Your task to perform on an android device: open app "Google Photos" Image 0: 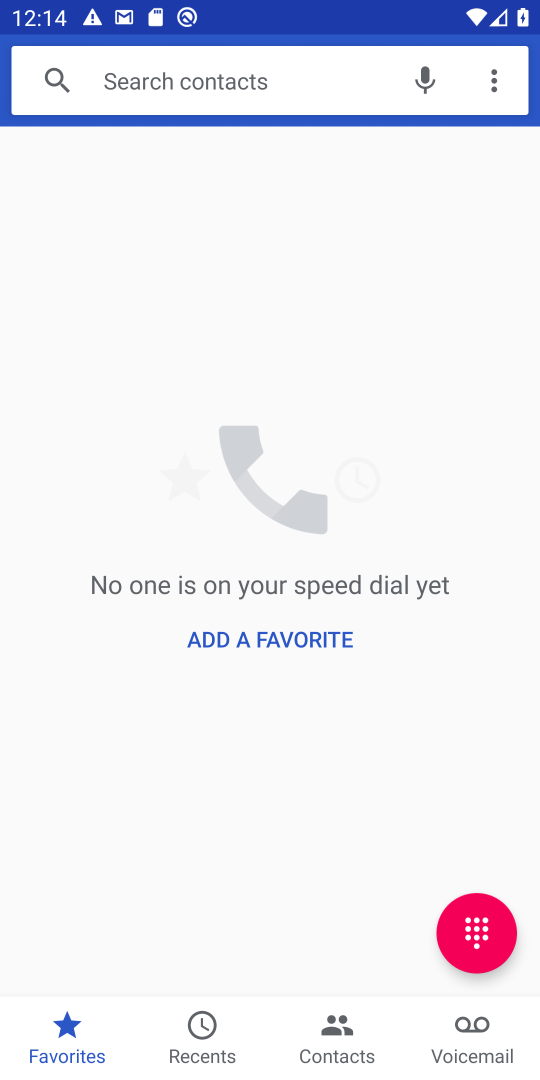
Step 0: press home button
Your task to perform on an android device: open app "Google Photos" Image 1: 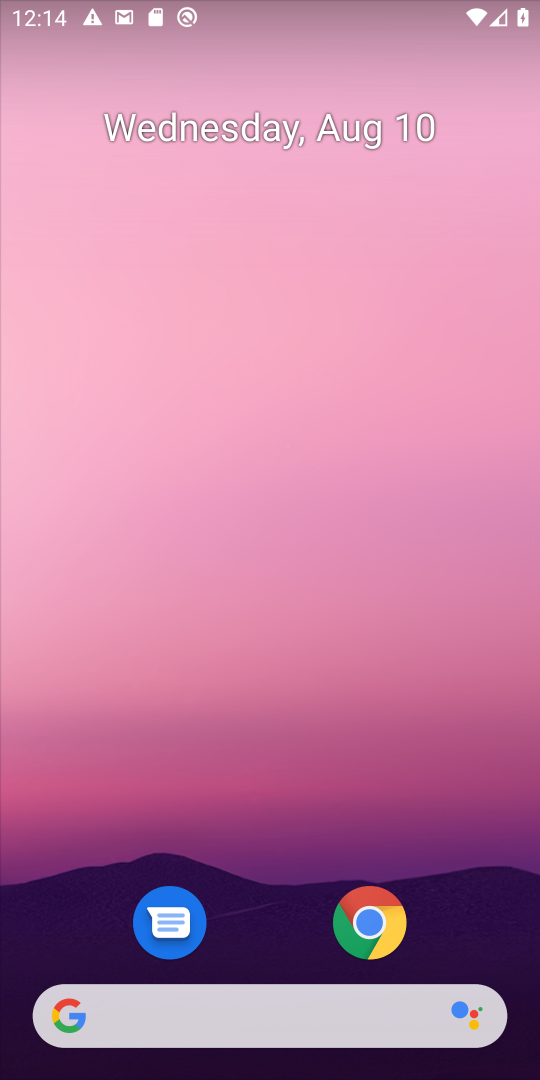
Step 1: drag from (254, 816) to (280, 99)
Your task to perform on an android device: open app "Google Photos" Image 2: 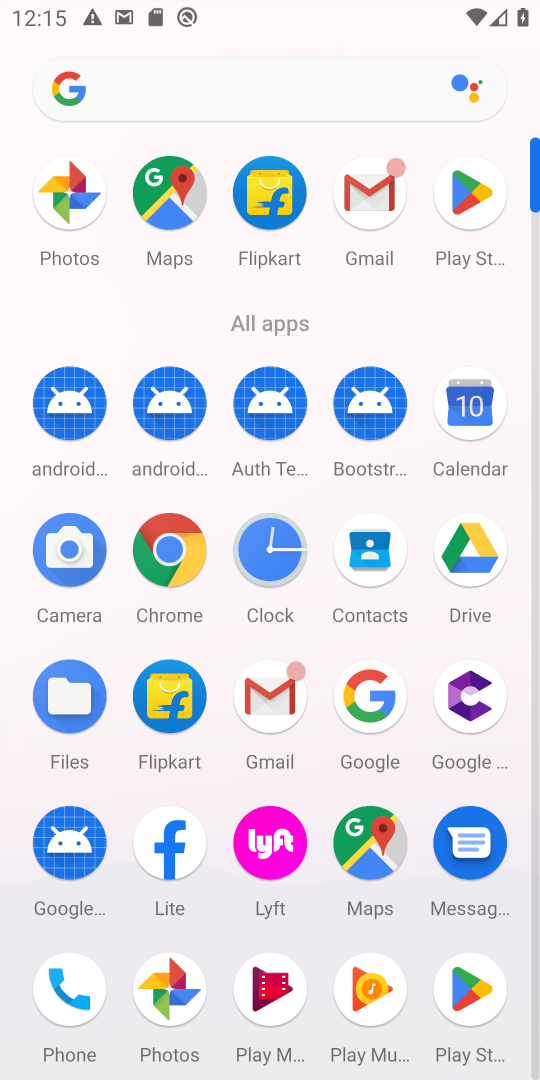
Step 2: click (162, 981)
Your task to perform on an android device: open app "Google Photos" Image 3: 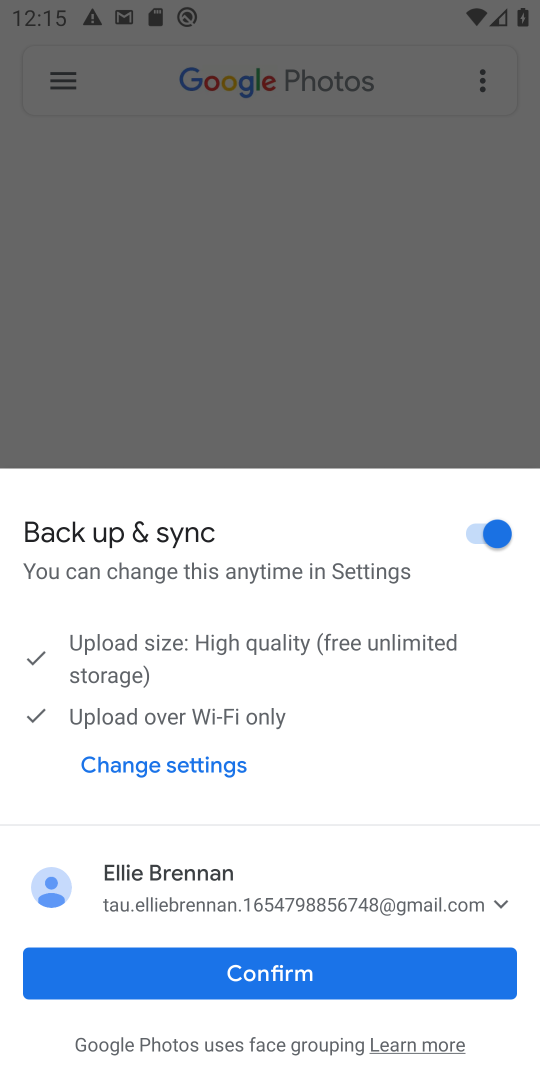
Step 3: click (259, 981)
Your task to perform on an android device: open app "Google Photos" Image 4: 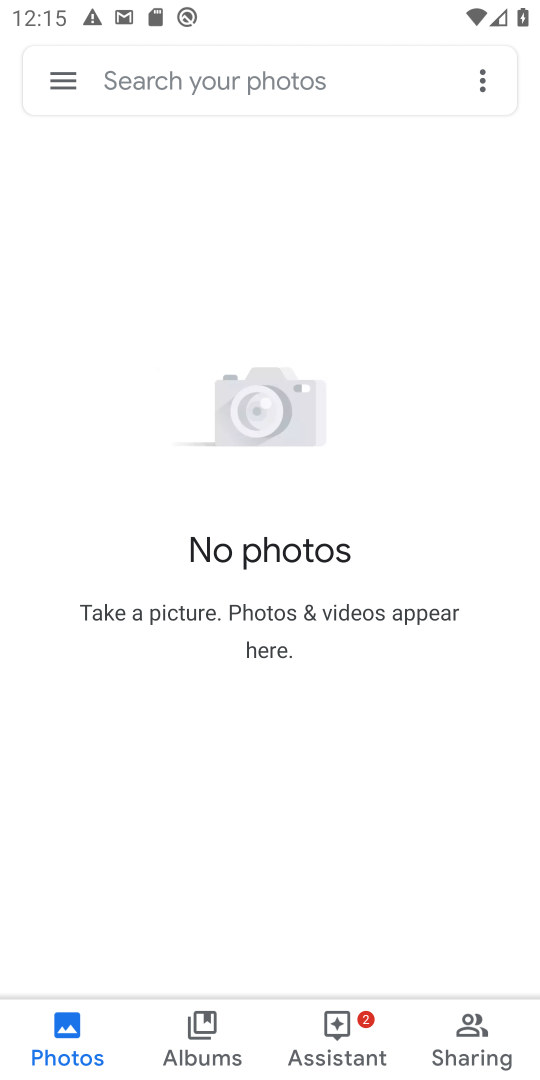
Step 4: task complete